Your task to perform on an android device: Open Google Image 0: 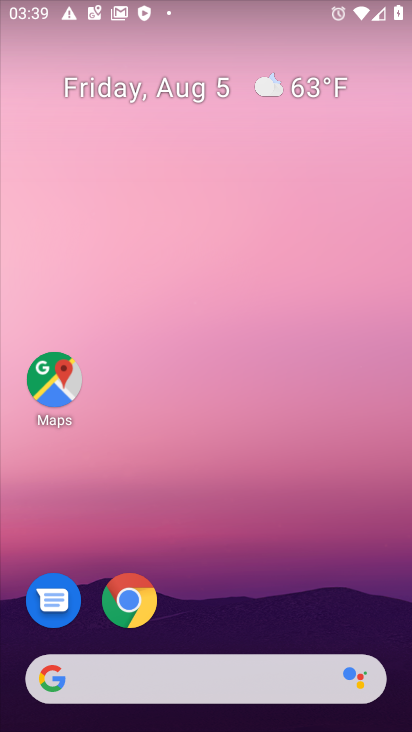
Step 0: drag from (213, 687) to (331, 199)
Your task to perform on an android device: Open Google Image 1: 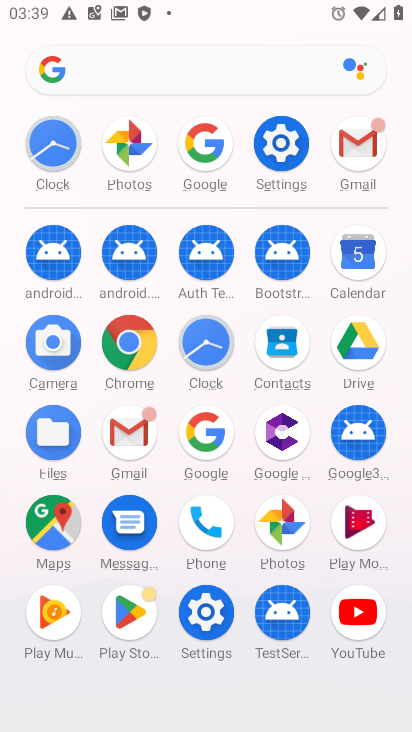
Step 1: click (204, 149)
Your task to perform on an android device: Open Google Image 2: 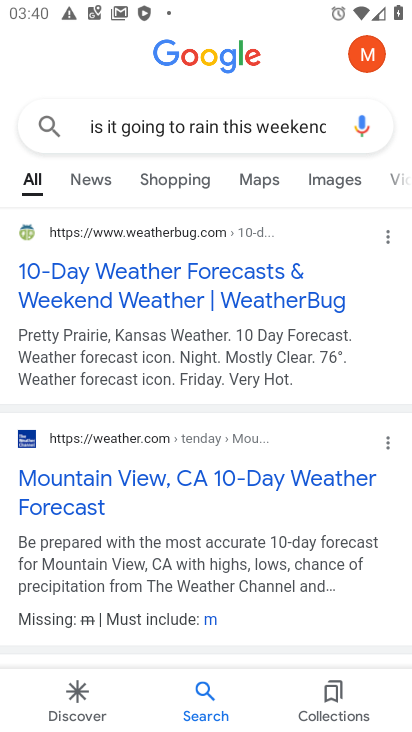
Step 2: task complete